Your task to perform on an android device: Open Google Maps and go to "Timeline" Image 0: 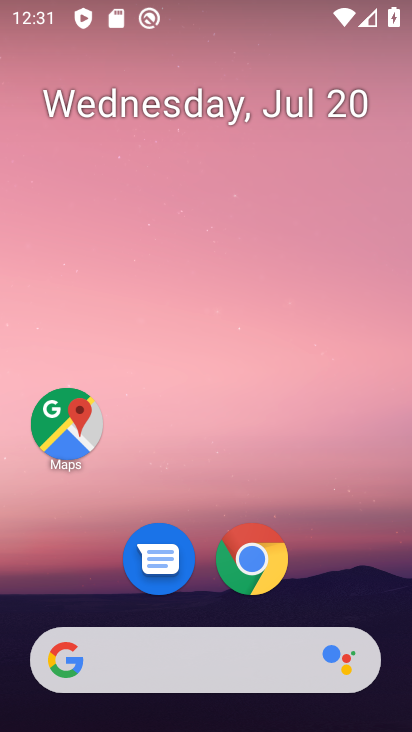
Step 0: drag from (367, 586) to (385, 131)
Your task to perform on an android device: Open Google Maps and go to "Timeline" Image 1: 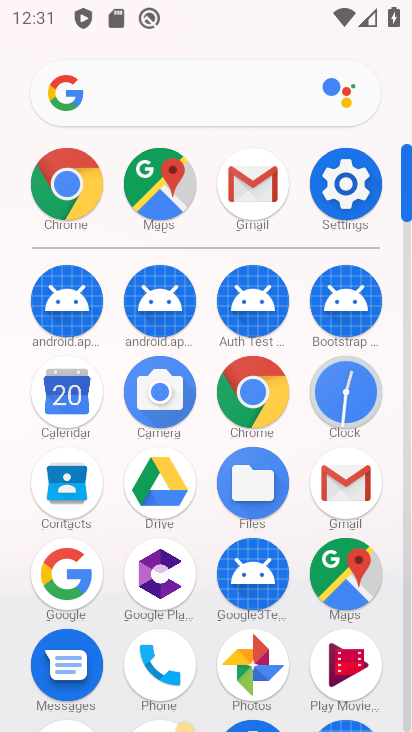
Step 1: click (341, 589)
Your task to perform on an android device: Open Google Maps and go to "Timeline" Image 2: 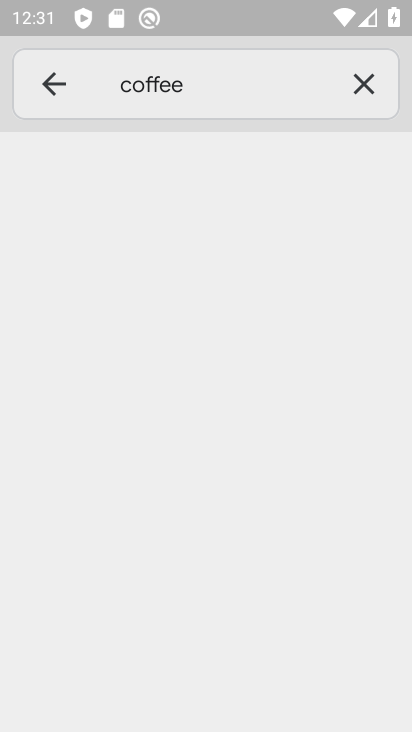
Step 2: press back button
Your task to perform on an android device: Open Google Maps and go to "Timeline" Image 3: 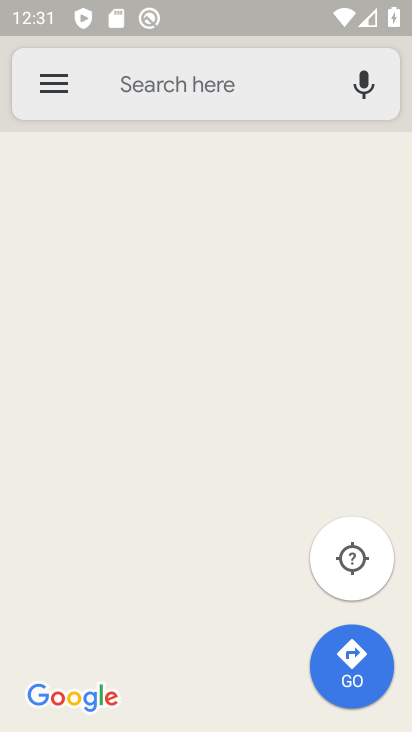
Step 3: click (59, 91)
Your task to perform on an android device: Open Google Maps and go to "Timeline" Image 4: 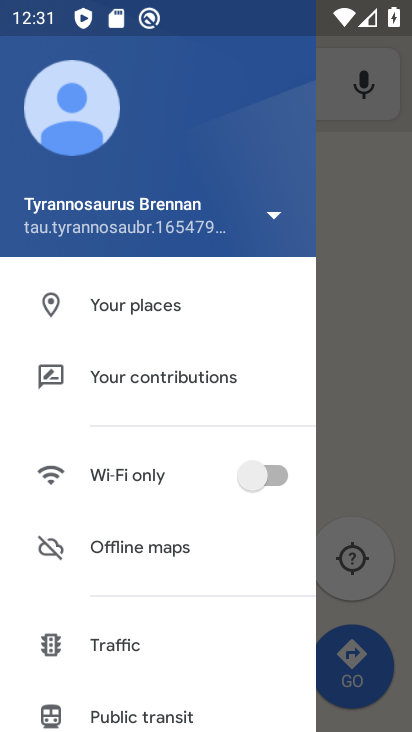
Step 4: task complete